Your task to perform on an android device: toggle javascript in the chrome app Image 0: 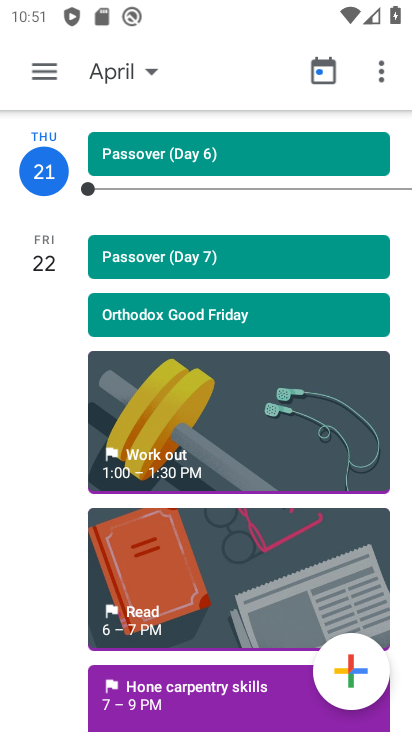
Step 0: press home button
Your task to perform on an android device: toggle javascript in the chrome app Image 1: 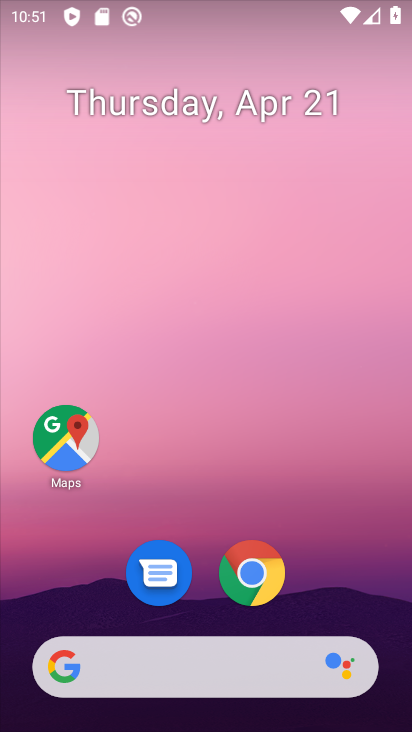
Step 1: click (272, 615)
Your task to perform on an android device: toggle javascript in the chrome app Image 2: 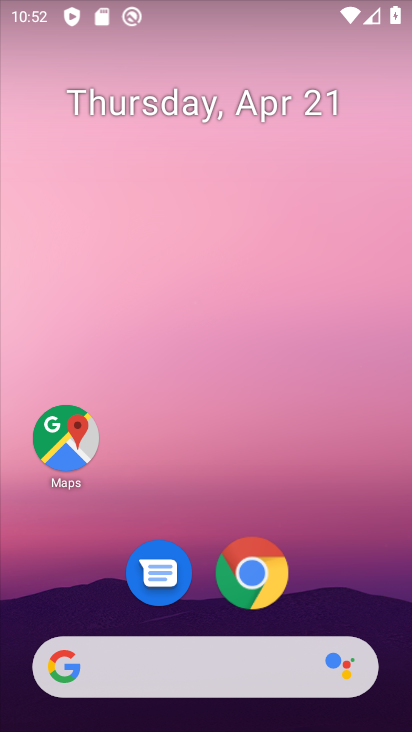
Step 2: click (257, 562)
Your task to perform on an android device: toggle javascript in the chrome app Image 3: 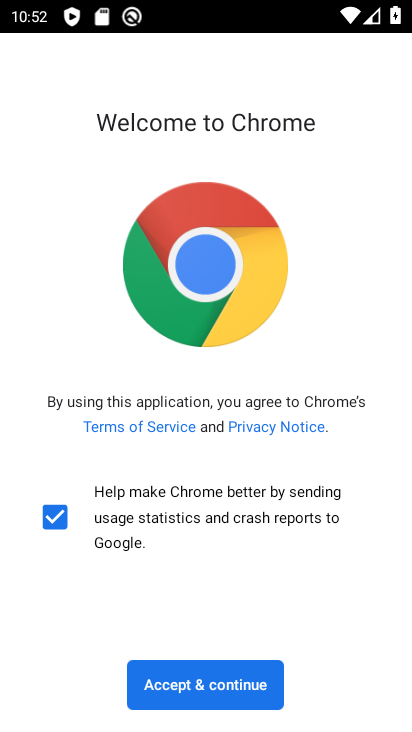
Step 3: click (222, 669)
Your task to perform on an android device: toggle javascript in the chrome app Image 4: 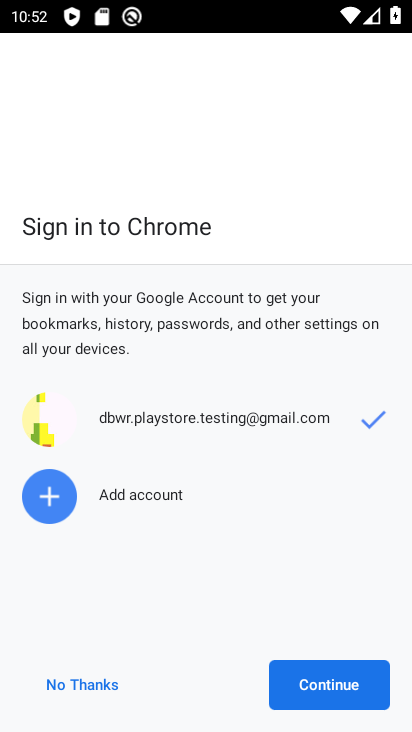
Step 4: click (330, 684)
Your task to perform on an android device: toggle javascript in the chrome app Image 5: 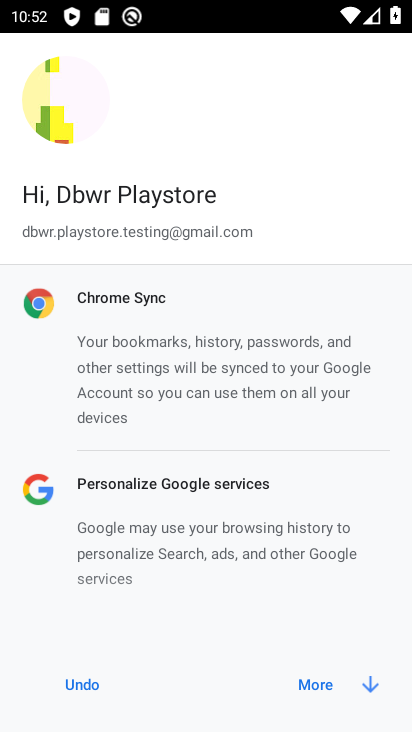
Step 5: click (328, 683)
Your task to perform on an android device: toggle javascript in the chrome app Image 6: 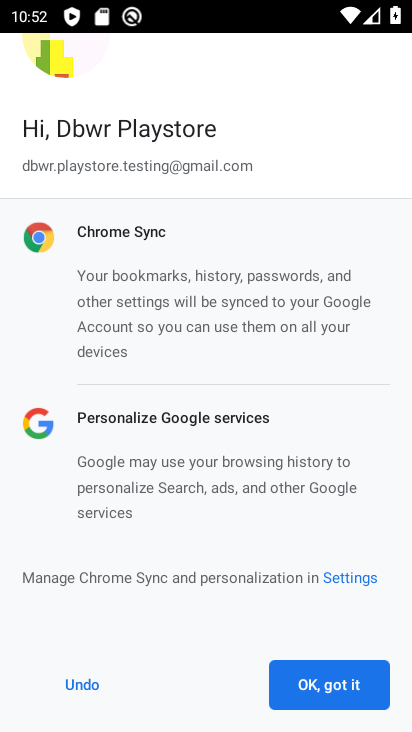
Step 6: click (320, 677)
Your task to perform on an android device: toggle javascript in the chrome app Image 7: 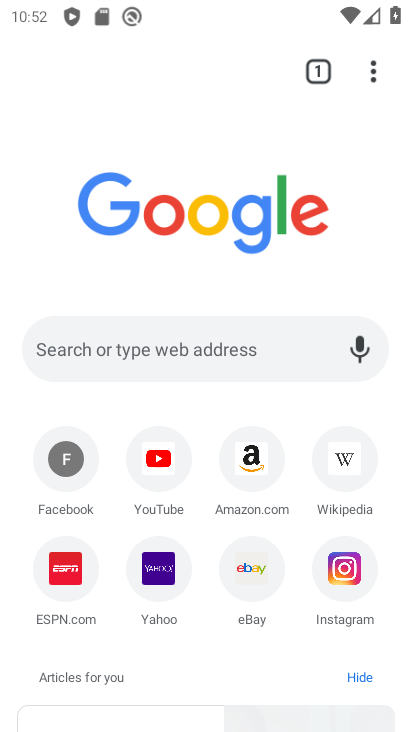
Step 7: click (381, 72)
Your task to perform on an android device: toggle javascript in the chrome app Image 8: 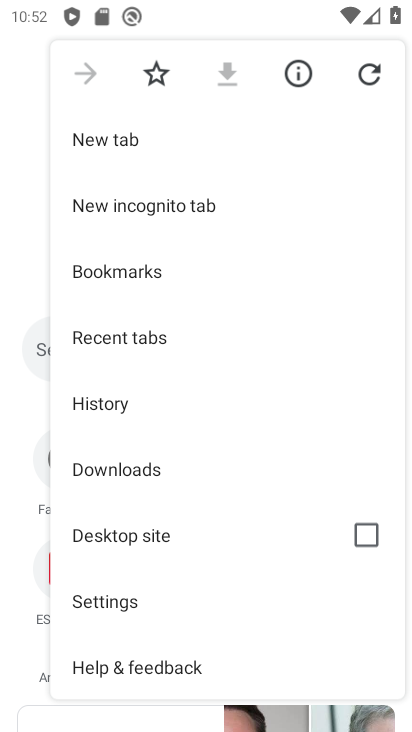
Step 8: click (111, 598)
Your task to perform on an android device: toggle javascript in the chrome app Image 9: 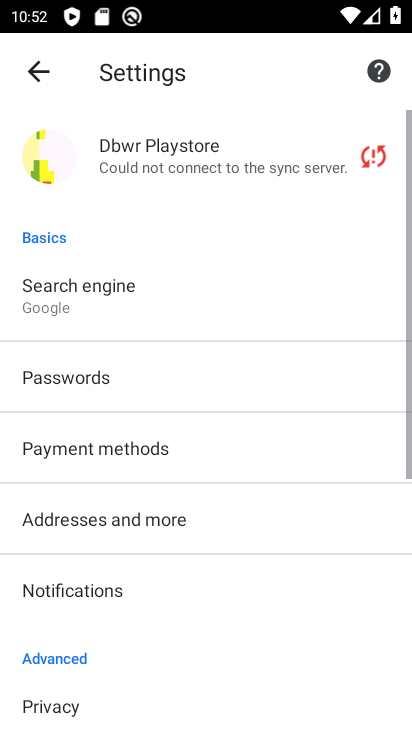
Step 9: drag from (202, 636) to (0, 439)
Your task to perform on an android device: toggle javascript in the chrome app Image 10: 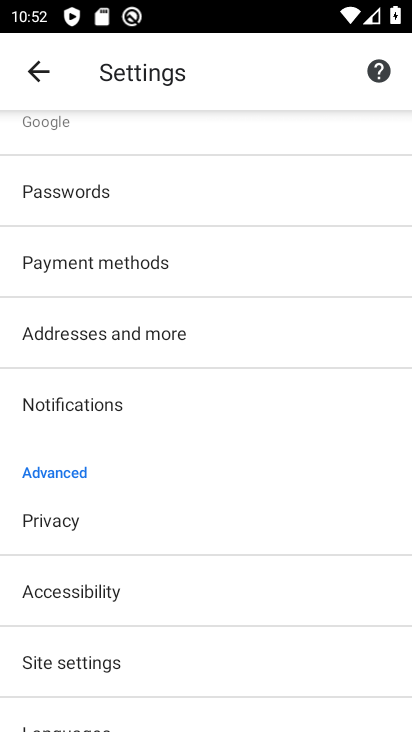
Step 10: click (83, 662)
Your task to perform on an android device: toggle javascript in the chrome app Image 11: 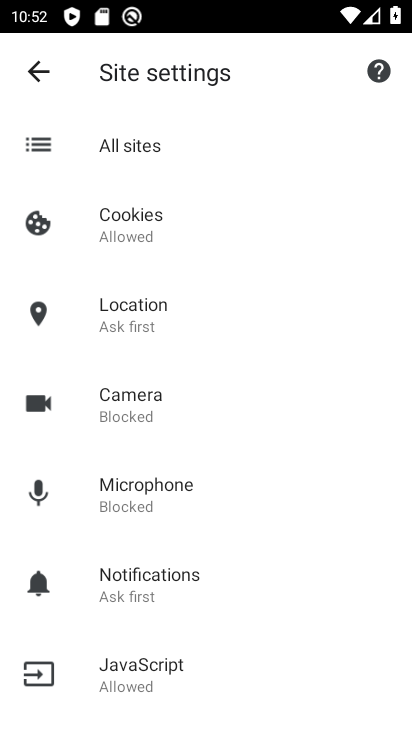
Step 11: click (170, 669)
Your task to perform on an android device: toggle javascript in the chrome app Image 12: 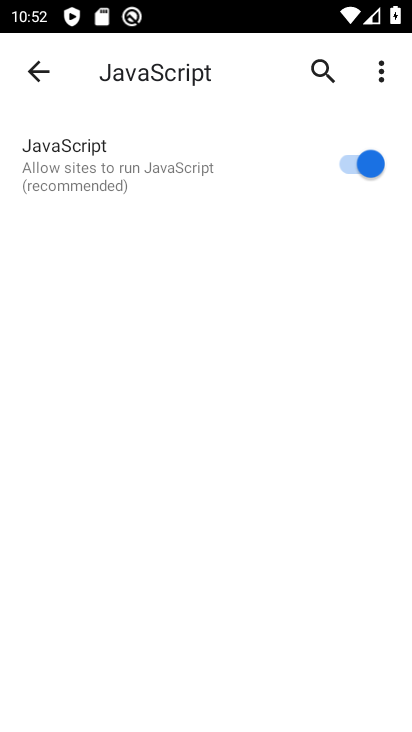
Step 12: click (334, 162)
Your task to perform on an android device: toggle javascript in the chrome app Image 13: 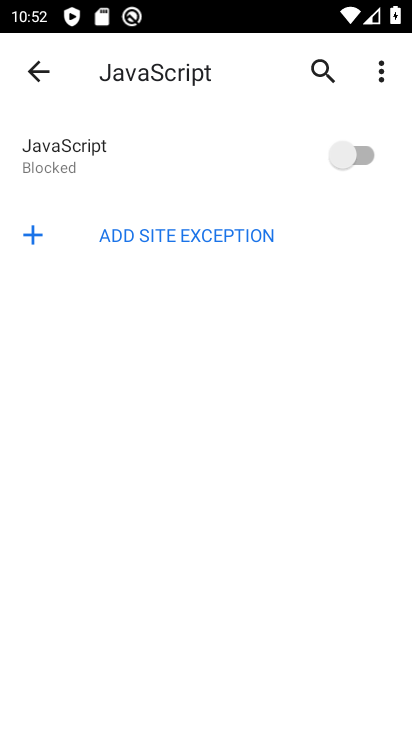
Step 13: task complete